Your task to perform on an android device: refresh tabs in the chrome app Image 0: 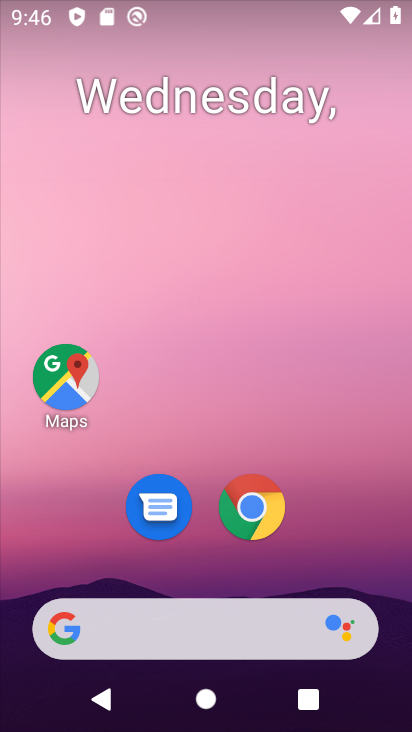
Step 0: drag from (217, 649) to (262, 151)
Your task to perform on an android device: refresh tabs in the chrome app Image 1: 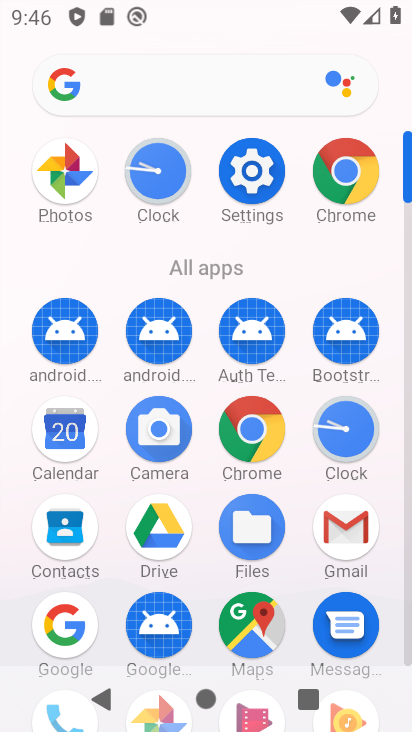
Step 1: click (238, 443)
Your task to perform on an android device: refresh tabs in the chrome app Image 2: 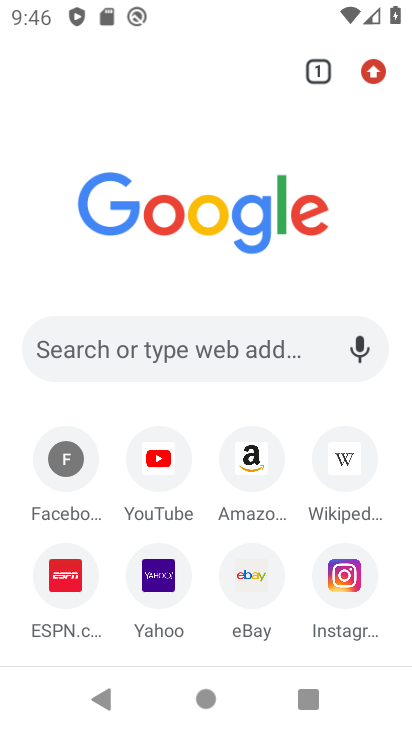
Step 2: click (371, 62)
Your task to perform on an android device: refresh tabs in the chrome app Image 3: 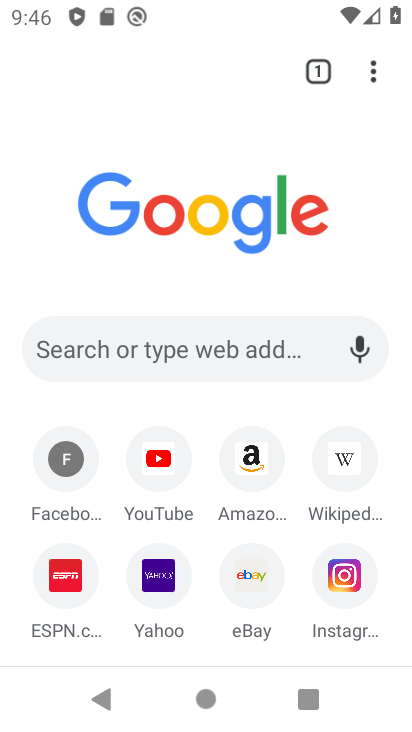
Step 3: click (364, 69)
Your task to perform on an android device: refresh tabs in the chrome app Image 4: 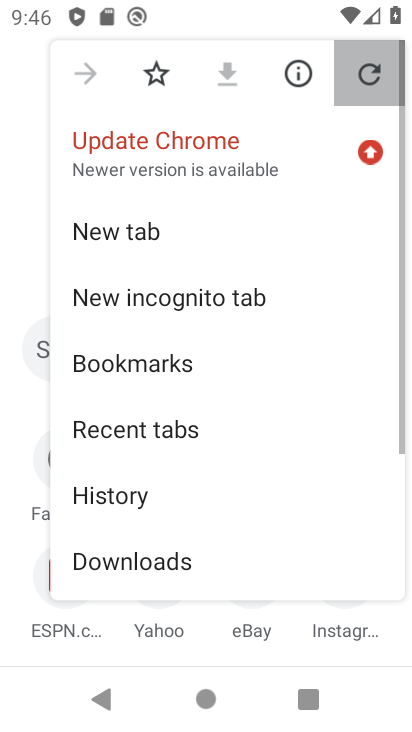
Step 4: click (371, 75)
Your task to perform on an android device: refresh tabs in the chrome app Image 5: 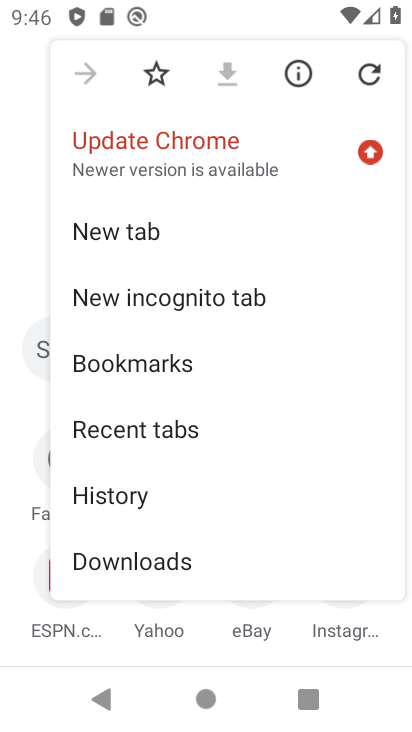
Step 5: click (378, 76)
Your task to perform on an android device: refresh tabs in the chrome app Image 6: 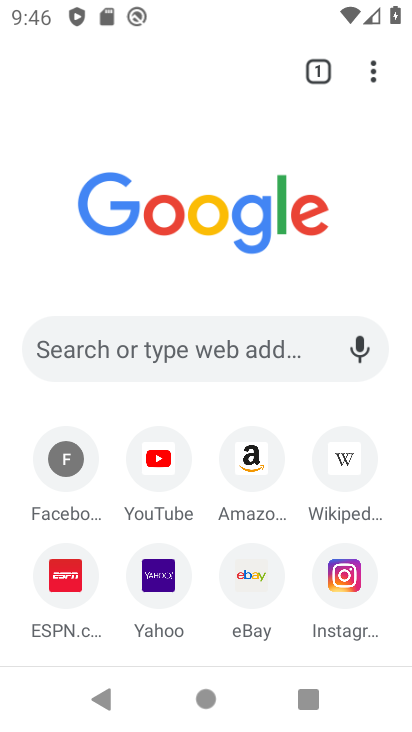
Step 6: task complete